Your task to perform on an android device: turn off translation in the chrome app Image 0: 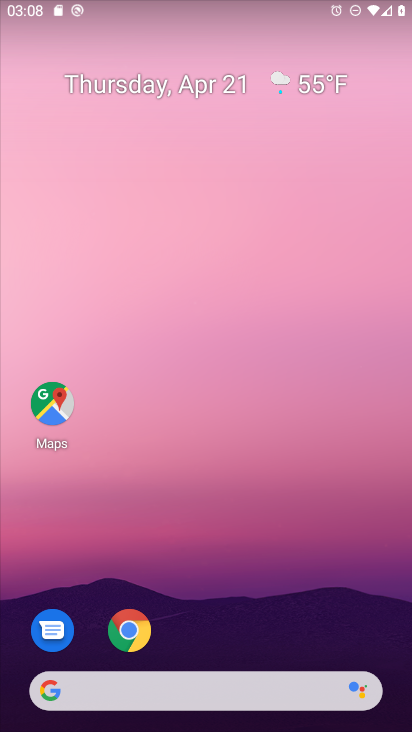
Step 0: click (139, 631)
Your task to perform on an android device: turn off translation in the chrome app Image 1: 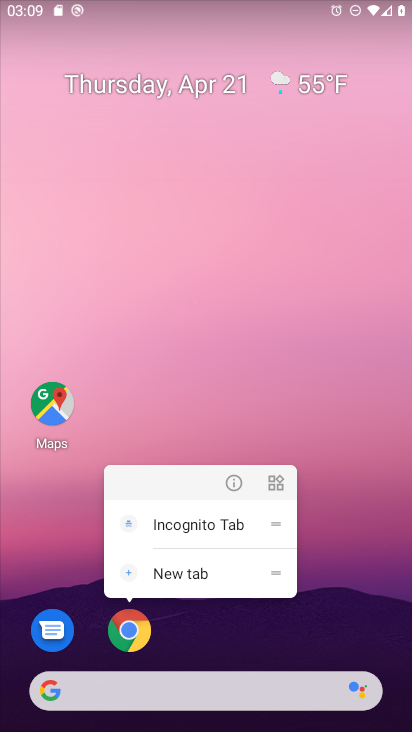
Step 1: click (346, 607)
Your task to perform on an android device: turn off translation in the chrome app Image 2: 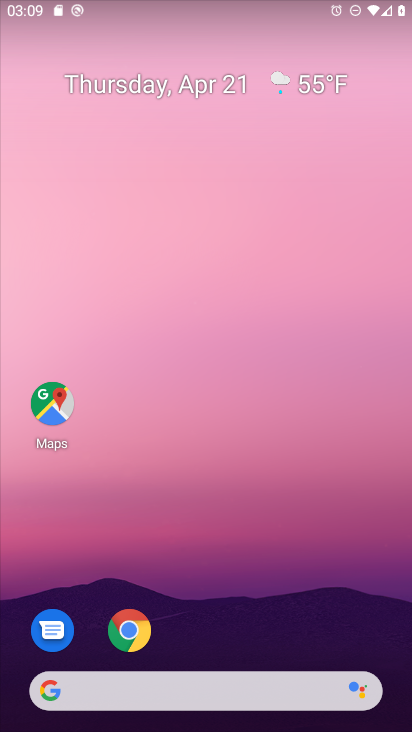
Step 2: click (144, 632)
Your task to perform on an android device: turn off translation in the chrome app Image 3: 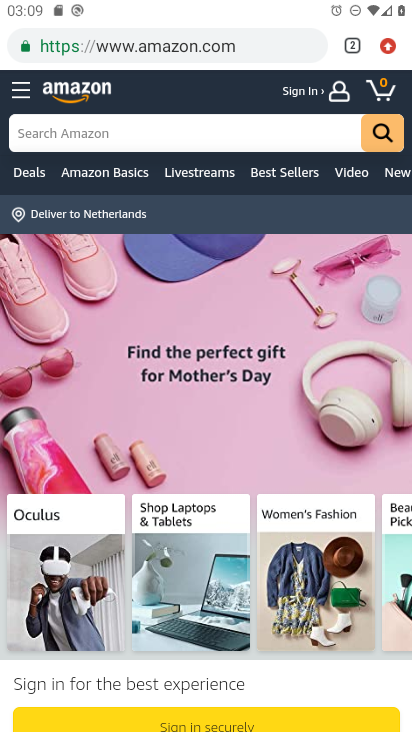
Step 3: click (383, 55)
Your task to perform on an android device: turn off translation in the chrome app Image 4: 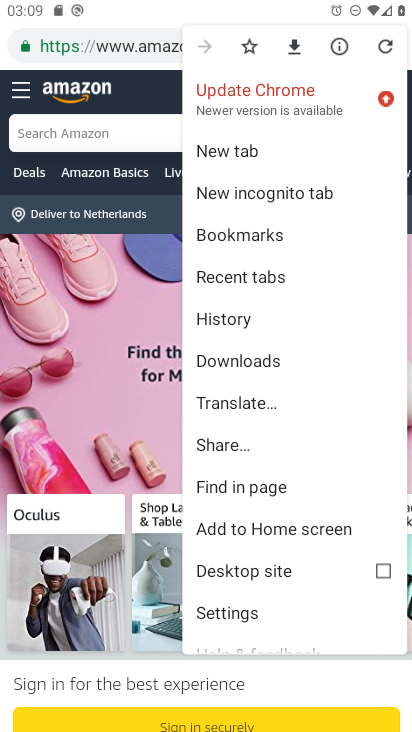
Step 4: click (267, 615)
Your task to perform on an android device: turn off translation in the chrome app Image 5: 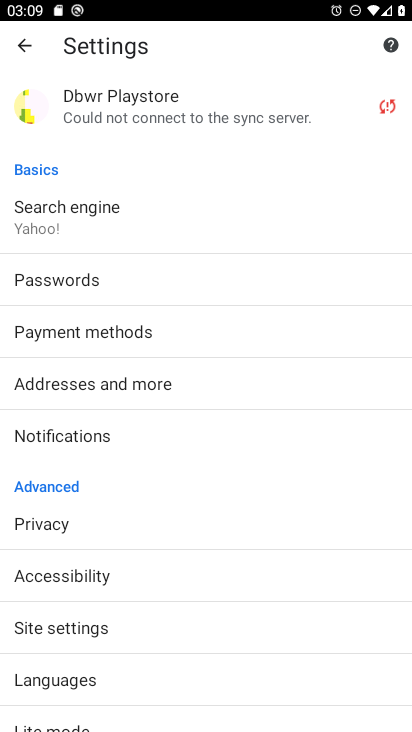
Step 5: drag from (267, 615) to (271, 426)
Your task to perform on an android device: turn off translation in the chrome app Image 6: 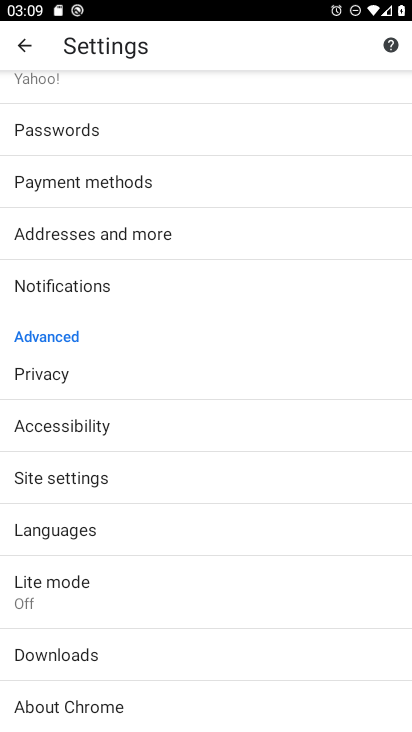
Step 6: click (201, 536)
Your task to perform on an android device: turn off translation in the chrome app Image 7: 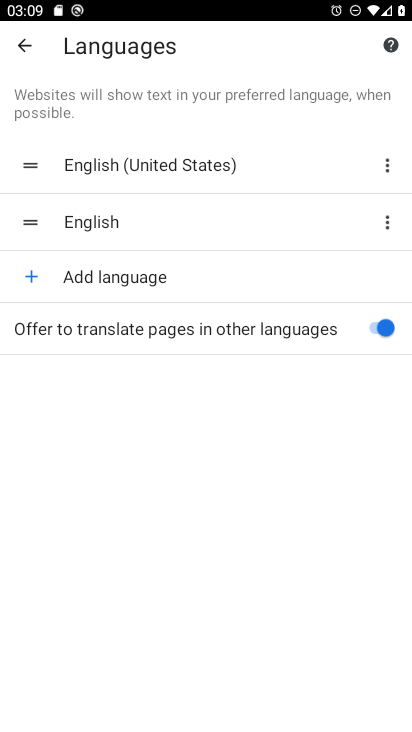
Step 7: click (361, 317)
Your task to perform on an android device: turn off translation in the chrome app Image 8: 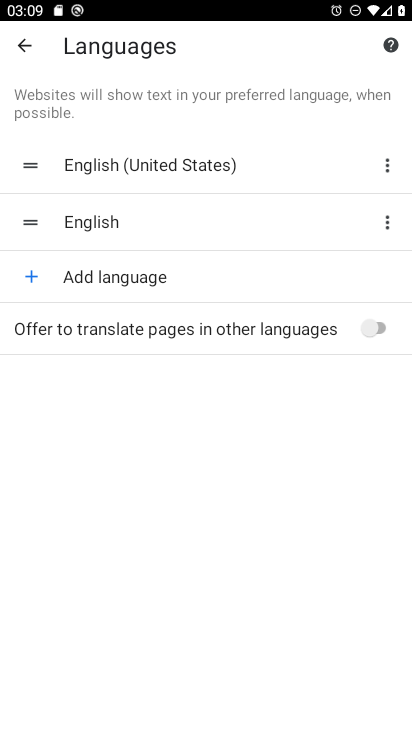
Step 8: task complete